Your task to perform on an android device: create a new album in the google photos Image 0: 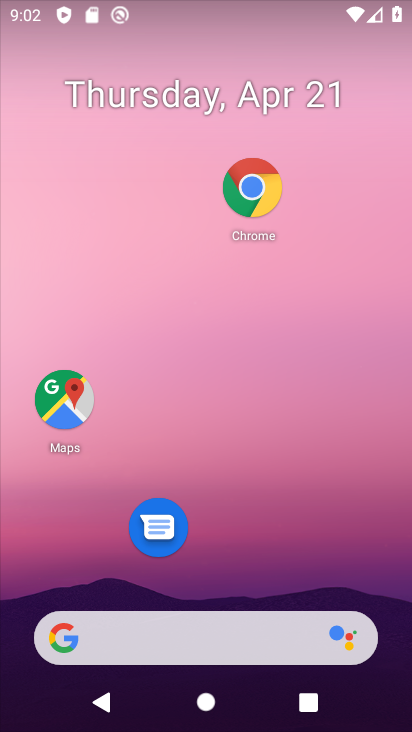
Step 0: drag from (176, 557) to (222, 392)
Your task to perform on an android device: create a new album in the google photos Image 1: 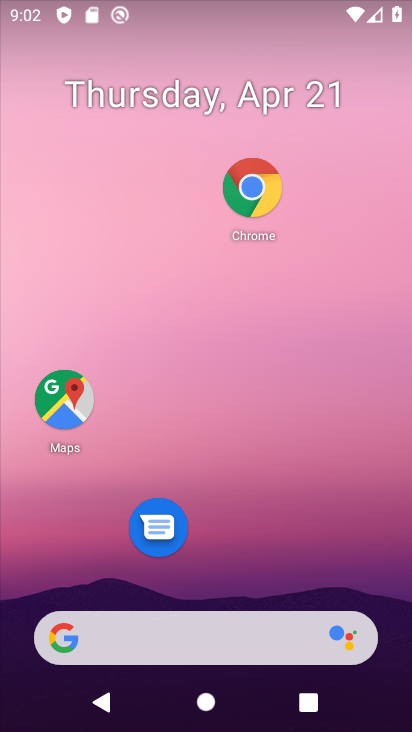
Step 1: drag from (266, 610) to (261, 369)
Your task to perform on an android device: create a new album in the google photos Image 2: 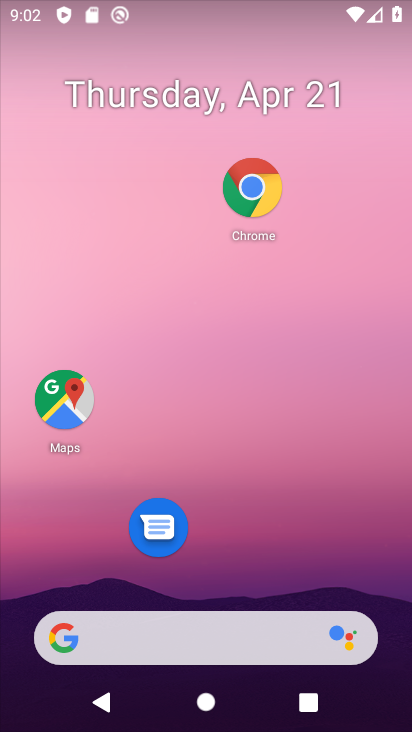
Step 2: drag from (262, 657) to (254, 318)
Your task to perform on an android device: create a new album in the google photos Image 3: 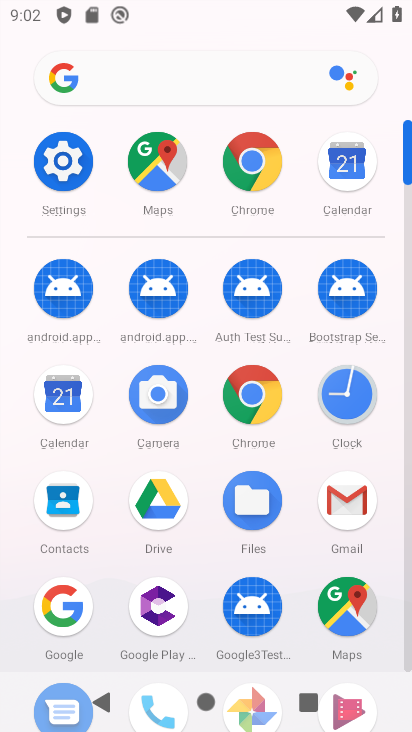
Step 3: click (354, 510)
Your task to perform on an android device: create a new album in the google photos Image 4: 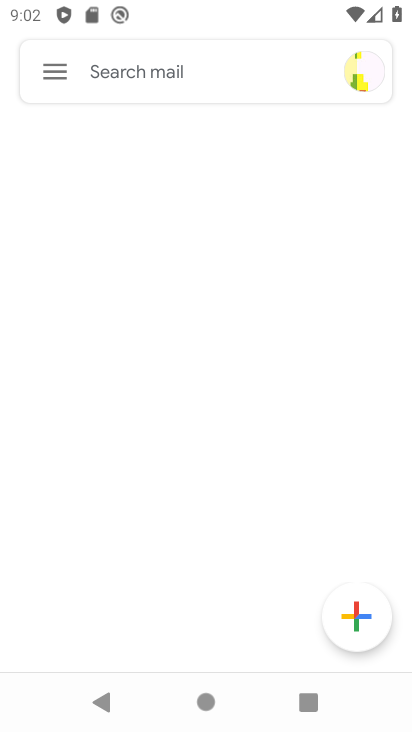
Step 4: click (109, 204)
Your task to perform on an android device: create a new album in the google photos Image 5: 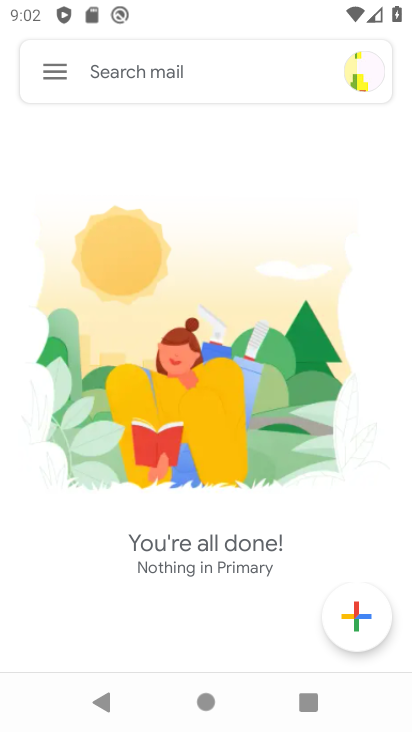
Step 5: press home button
Your task to perform on an android device: create a new album in the google photos Image 6: 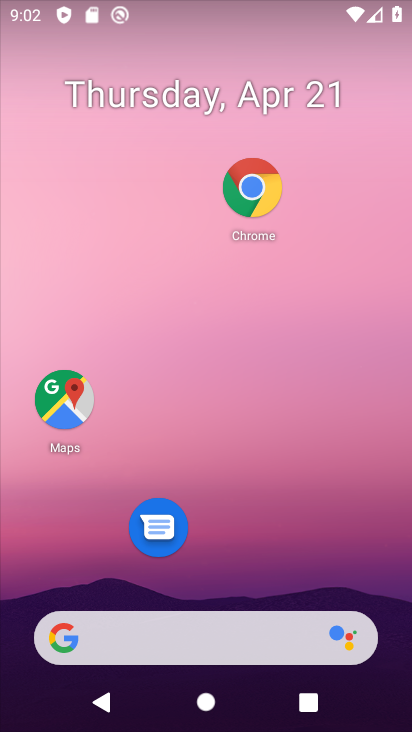
Step 6: drag from (237, 545) to (199, 163)
Your task to perform on an android device: create a new album in the google photos Image 7: 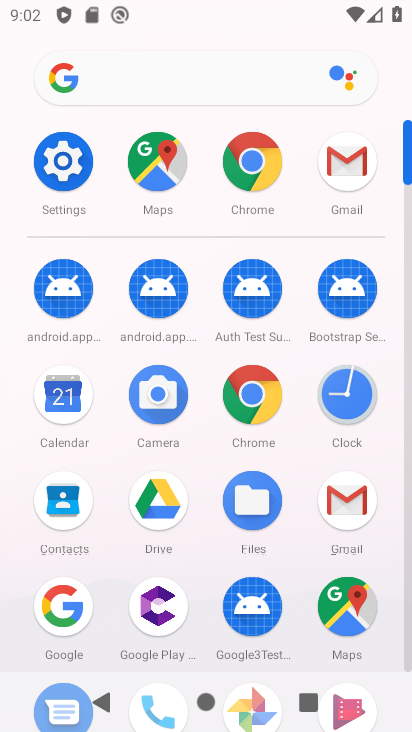
Step 7: click (404, 495)
Your task to perform on an android device: create a new album in the google photos Image 8: 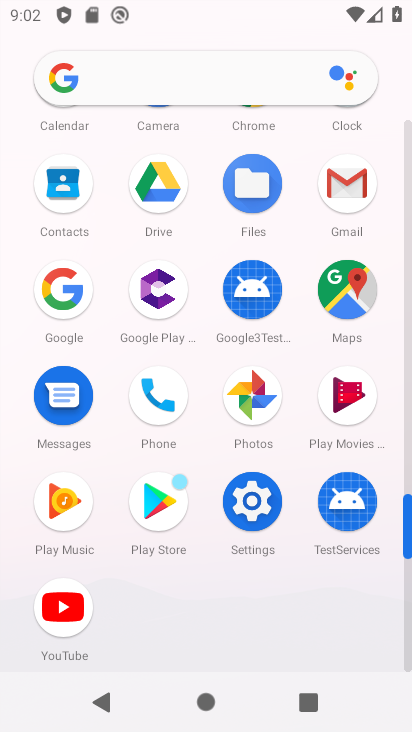
Step 8: click (263, 404)
Your task to perform on an android device: create a new album in the google photos Image 9: 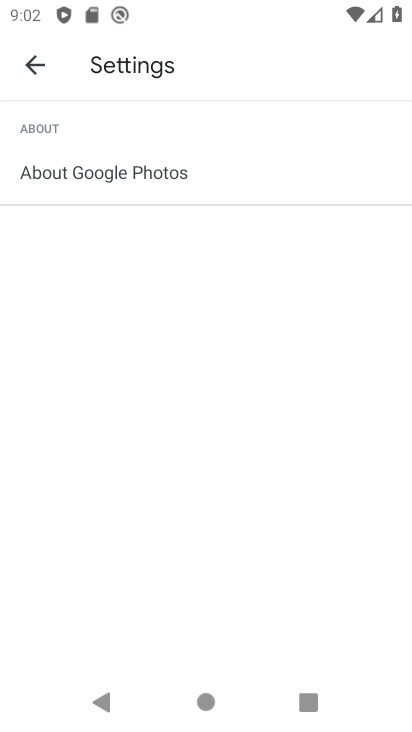
Step 9: click (25, 62)
Your task to perform on an android device: create a new album in the google photos Image 10: 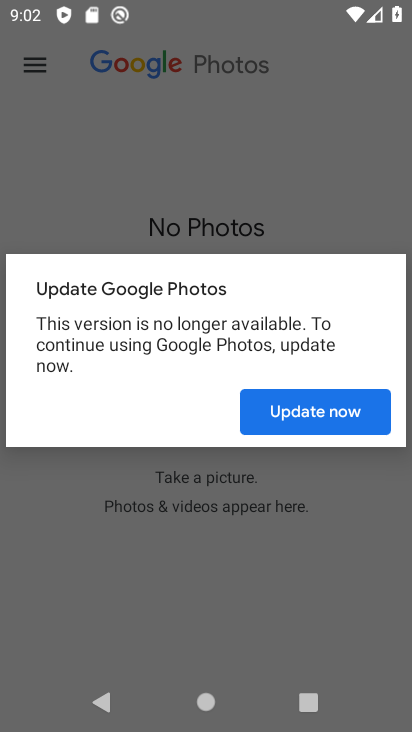
Step 10: task complete